Your task to perform on an android device: Search for vegetarian restaurants on Maps Image 0: 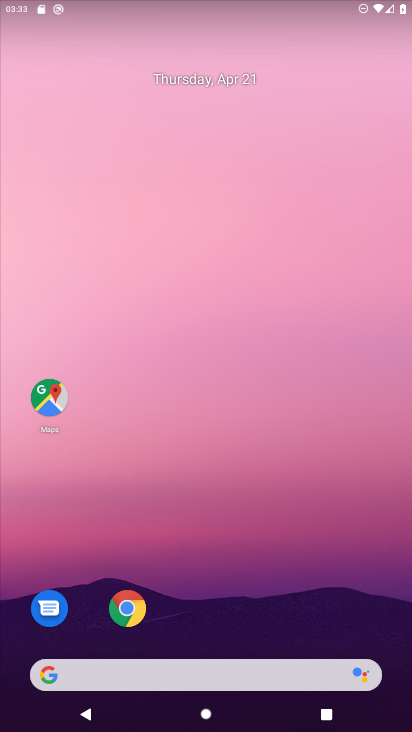
Step 0: drag from (213, 544) to (297, 157)
Your task to perform on an android device: Search for vegetarian restaurants on Maps Image 1: 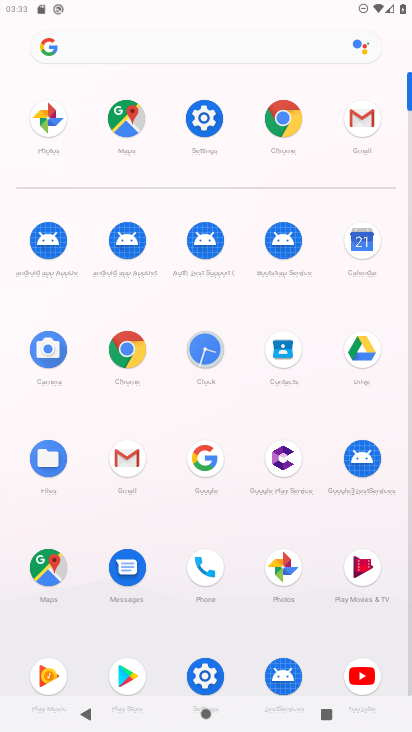
Step 1: click (116, 114)
Your task to perform on an android device: Search for vegetarian restaurants on Maps Image 2: 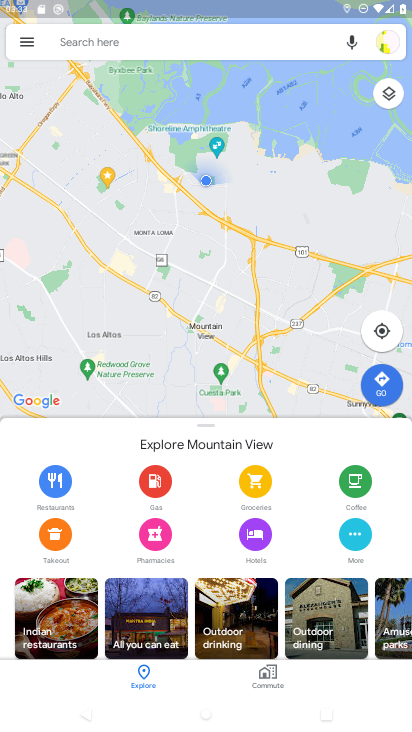
Step 2: click (148, 41)
Your task to perform on an android device: Search for vegetarian restaurants on Maps Image 3: 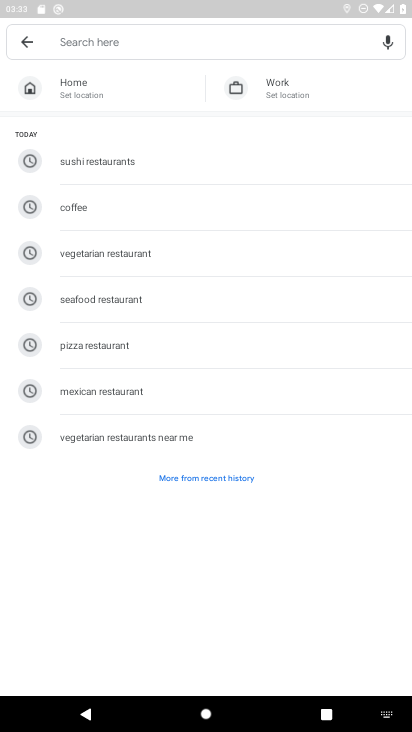
Step 3: type "vegetarian restaurants "
Your task to perform on an android device: Search for vegetarian restaurants on Maps Image 4: 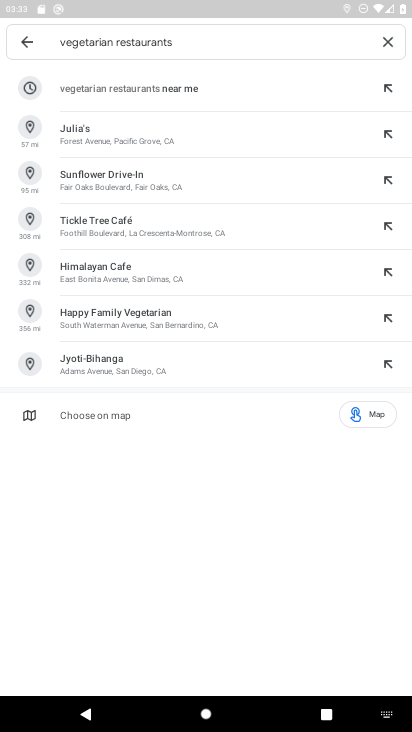
Step 4: click (199, 82)
Your task to perform on an android device: Search for vegetarian restaurants on Maps Image 5: 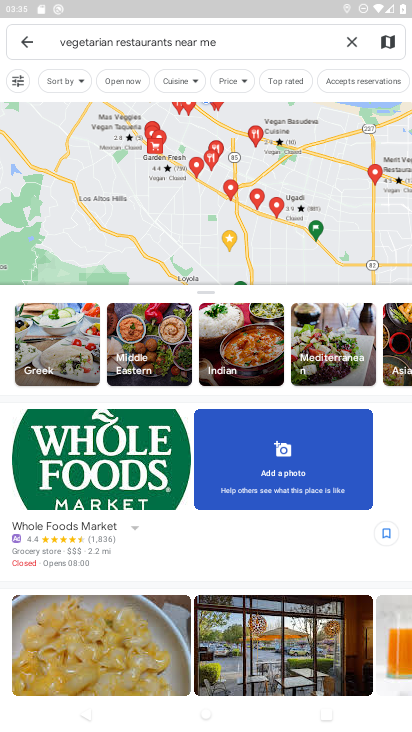
Step 5: task complete